Your task to perform on an android device: turn off improve location accuracy Image 0: 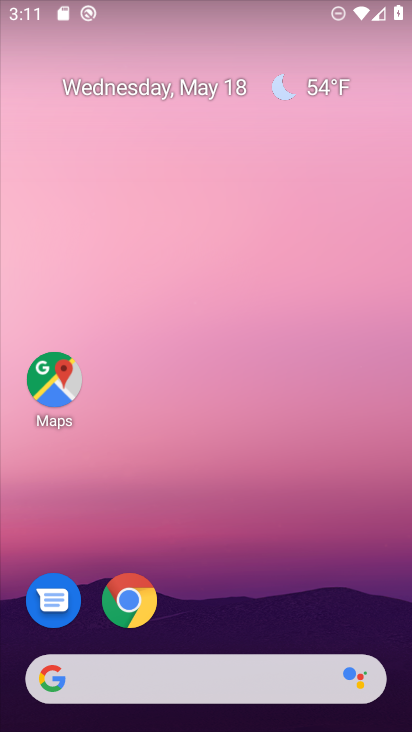
Step 0: drag from (217, 616) to (273, 94)
Your task to perform on an android device: turn off improve location accuracy Image 1: 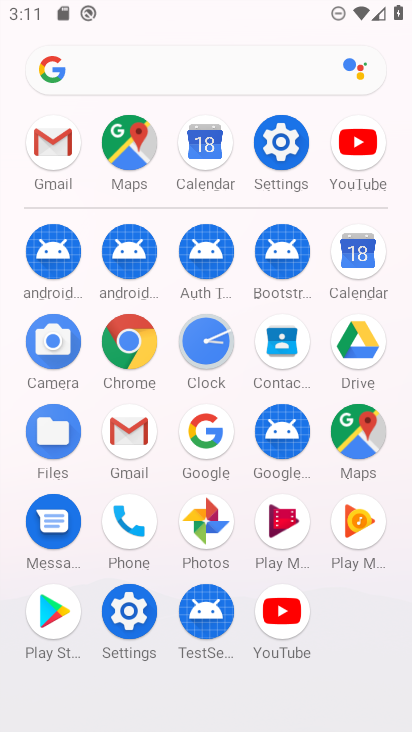
Step 1: click (138, 620)
Your task to perform on an android device: turn off improve location accuracy Image 2: 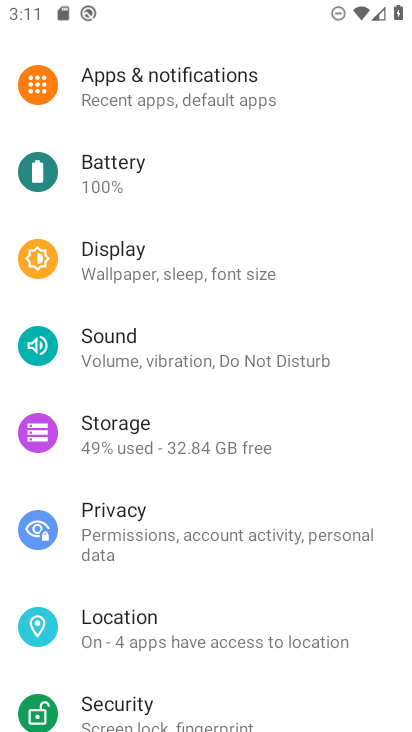
Step 2: click (162, 637)
Your task to perform on an android device: turn off improve location accuracy Image 3: 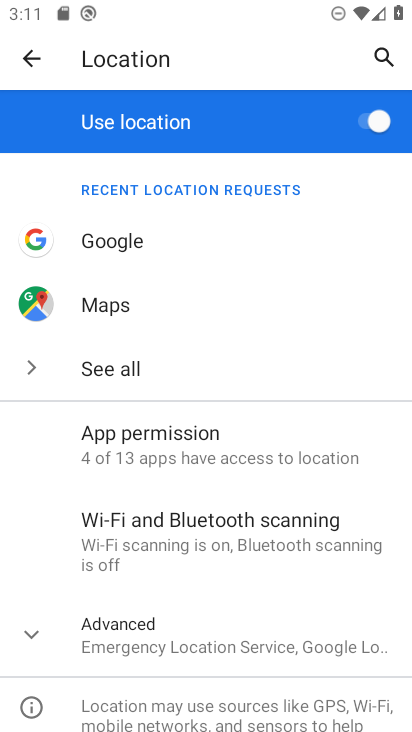
Step 3: click (197, 647)
Your task to perform on an android device: turn off improve location accuracy Image 4: 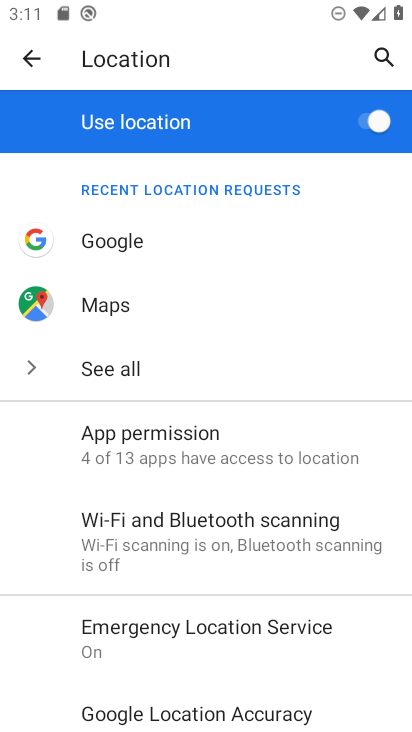
Step 4: drag from (216, 587) to (249, 425)
Your task to perform on an android device: turn off improve location accuracy Image 5: 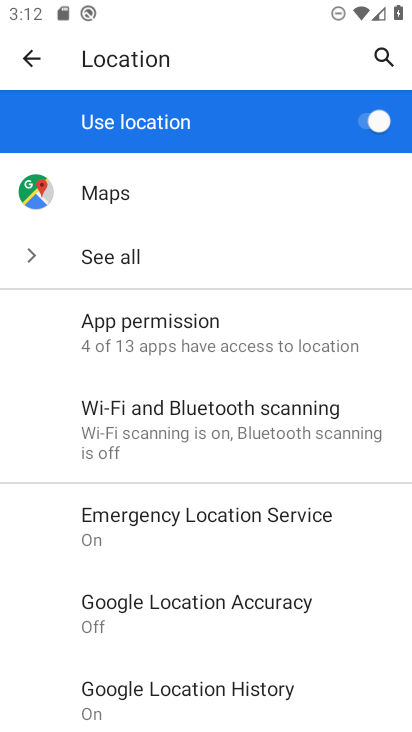
Step 5: click (206, 595)
Your task to perform on an android device: turn off improve location accuracy Image 6: 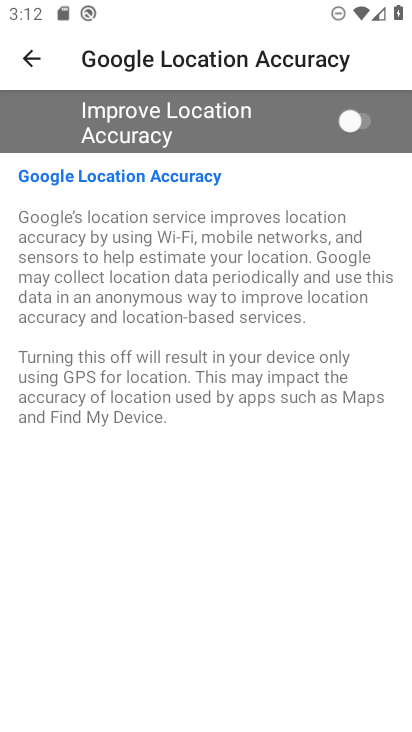
Step 6: task complete